Your task to perform on an android device: turn on the 24-hour format for clock Image 0: 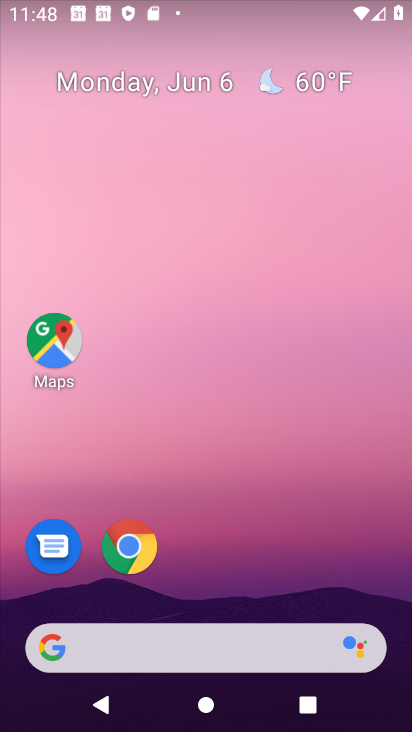
Step 0: drag from (253, 673) to (150, 174)
Your task to perform on an android device: turn on the 24-hour format for clock Image 1: 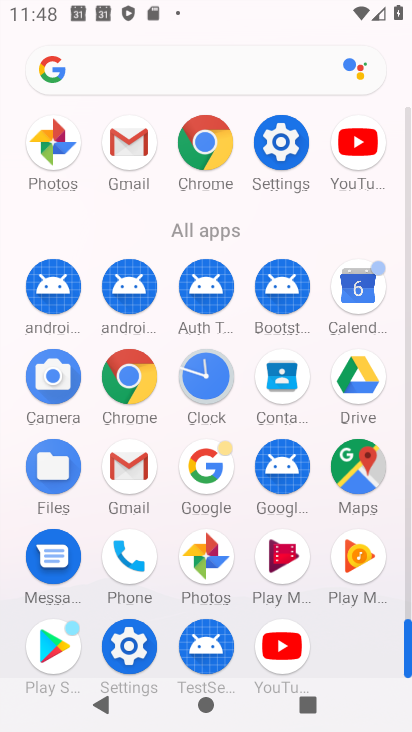
Step 1: click (198, 385)
Your task to perform on an android device: turn on the 24-hour format for clock Image 2: 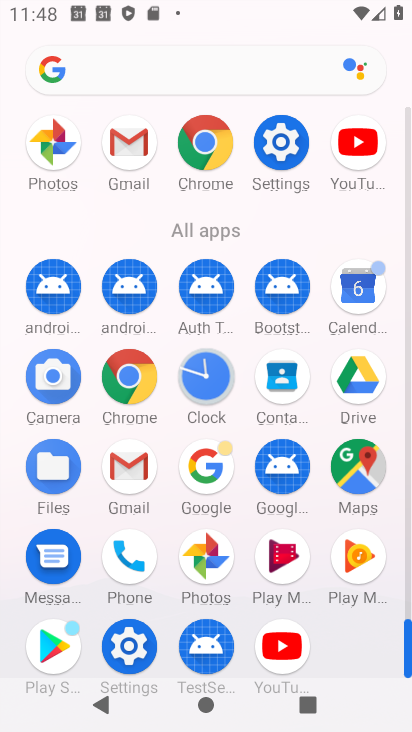
Step 2: click (198, 384)
Your task to perform on an android device: turn on the 24-hour format for clock Image 3: 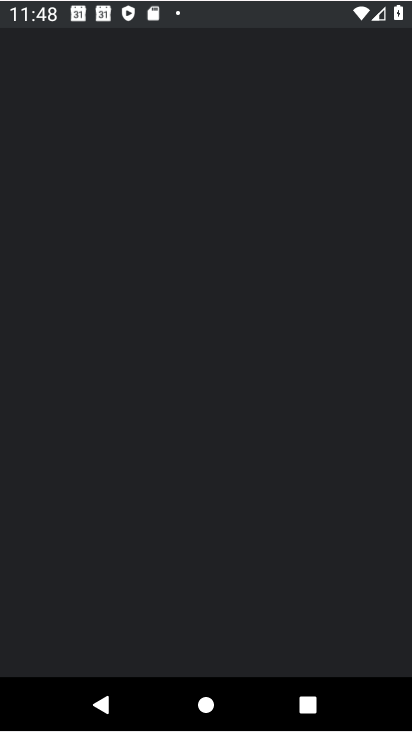
Step 3: click (219, 394)
Your task to perform on an android device: turn on the 24-hour format for clock Image 4: 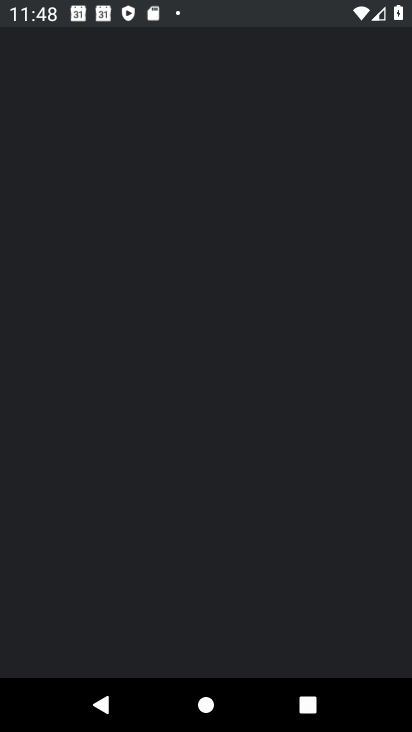
Step 4: click (224, 408)
Your task to perform on an android device: turn on the 24-hour format for clock Image 5: 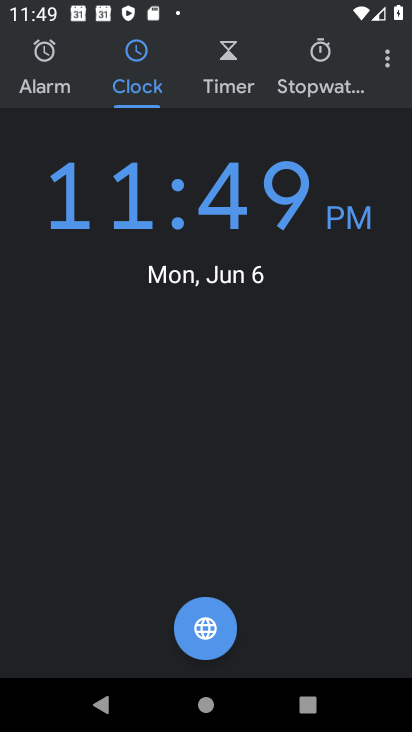
Step 5: click (387, 62)
Your task to perform on an android device: turn on the 24-hour format for clock Image 6: 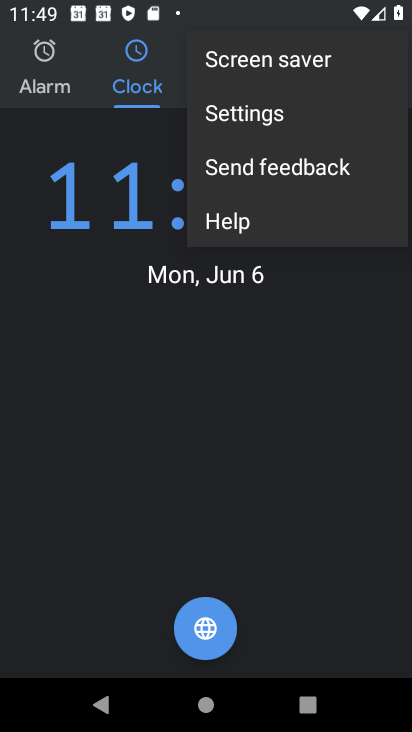
Step 6: click (236, 111)
Your task to perform on an android device: turn on the 24-hour format for clock Image 7: 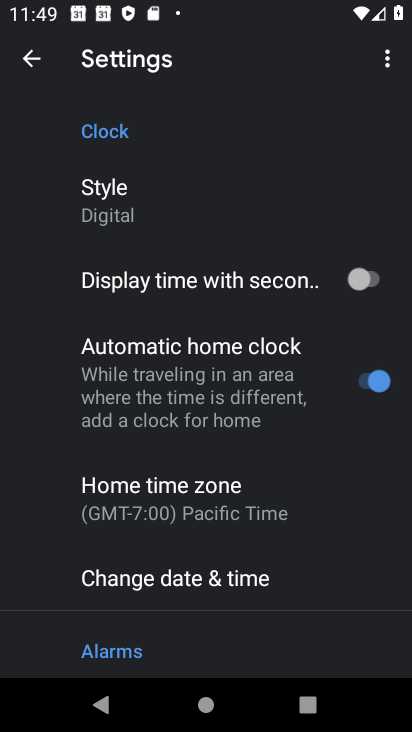
Step 7: click (155, 191)
Your task to perform on an android device: turn on the 24-hour format for clock Image 8: 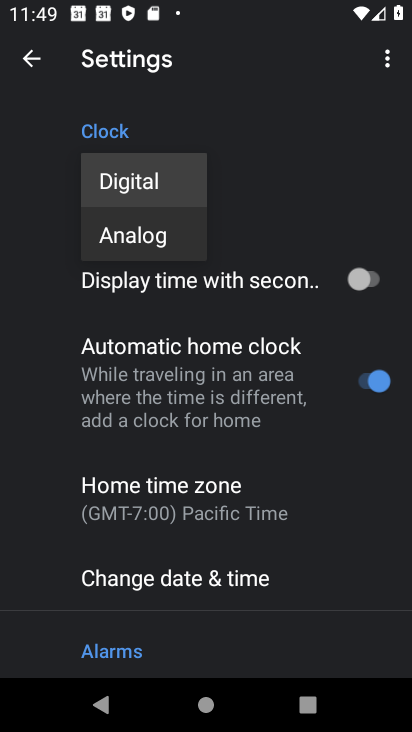
Step 8: click (300, 162)
Your task to perform on an android device: turn on the 24-hour format for clock Image 9: 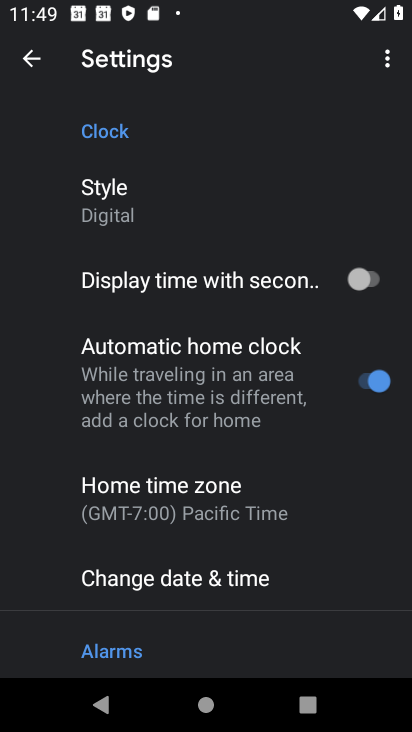
Step 9: drag from (302, 534) to (296, 323)
Your task to perform on an android device: turn on the 24-hour format for clock Image 10: 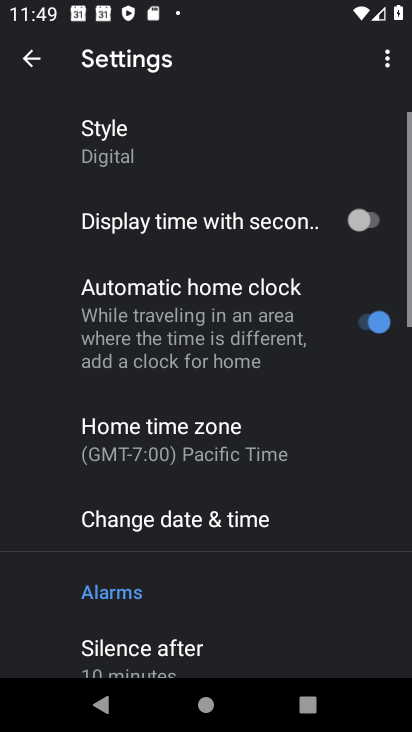
Step 10: click (278, 586)
Your task to perform on an android device: turn on the 24-hour format for clock Image 11: 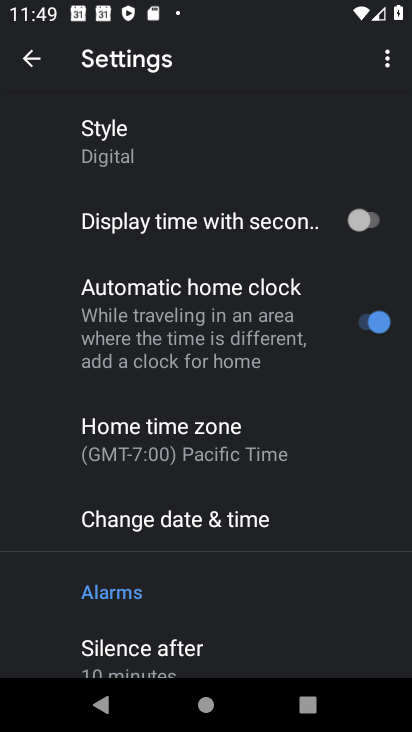
Step 11: click (271, 516)
Your task to perform on an android device: turn on the 24-hour format for clock Image 12: 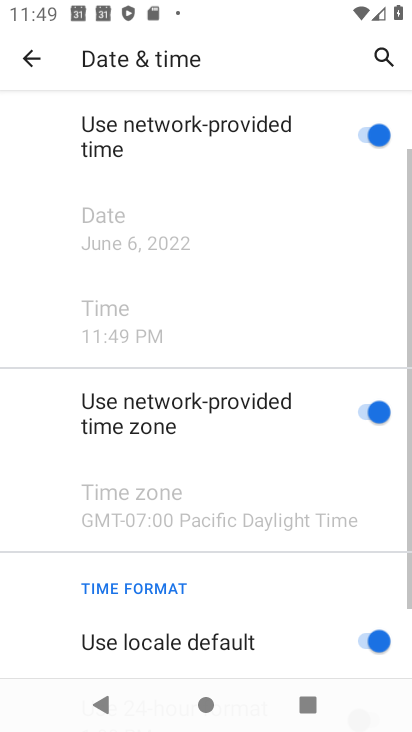
Step 12: drag from (241, 506) to (137, 182)
Your task to perform on an android device: turn on the 24-hour format for clock Image 13: 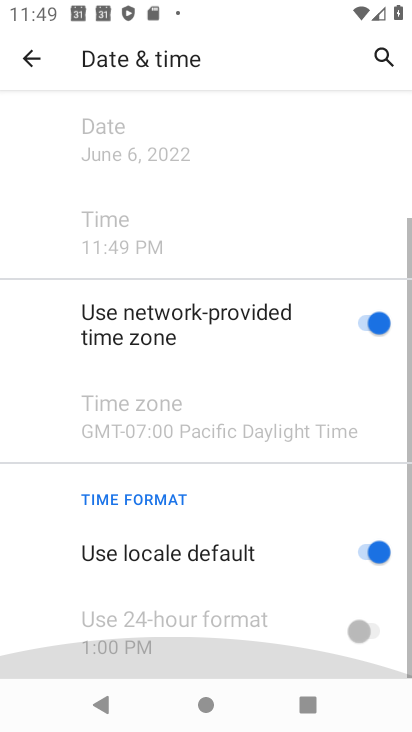
Step 13: drag from (173, 486) to (135, 137)
Your task to perform on an android device: turn on the 24-hour format for clock Image 14: 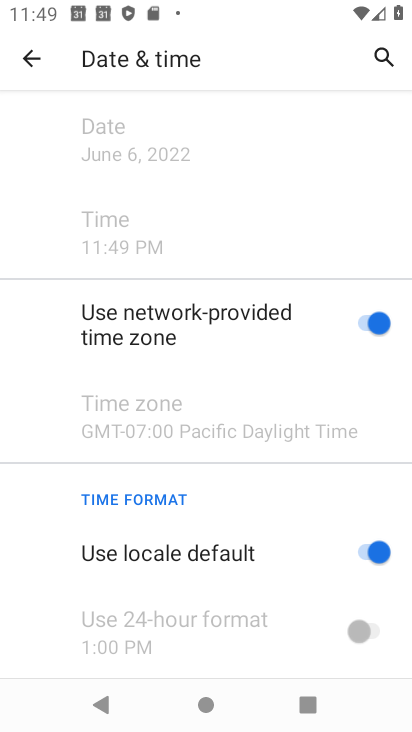
Step 14: click (370, 549)
Your task to perform on an android device: turn on the 24-hour format for clock Image 15: 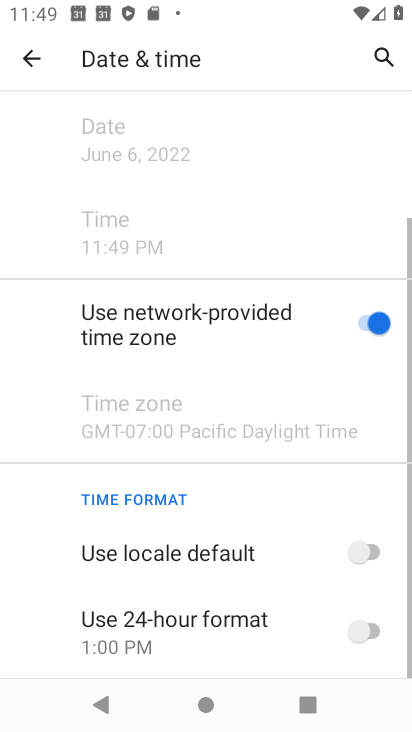
Step 15: click (362, 629)
Your task to perform on an android device: turn on the 24-hour format for clock Image 16: 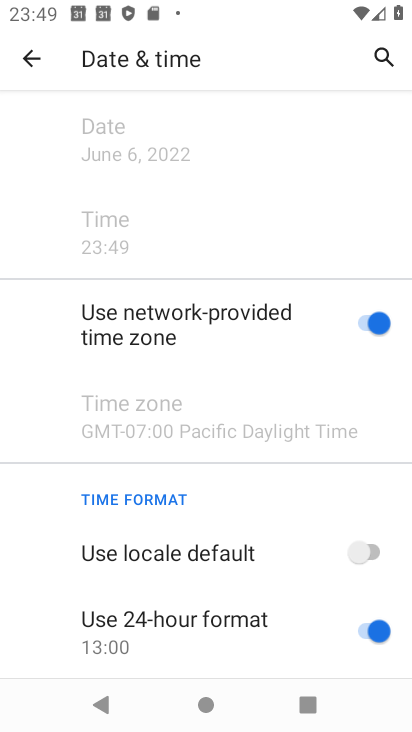
Step 16: task complete